Your task to perform on an android device: Find coffee shops on Maps Image 0: 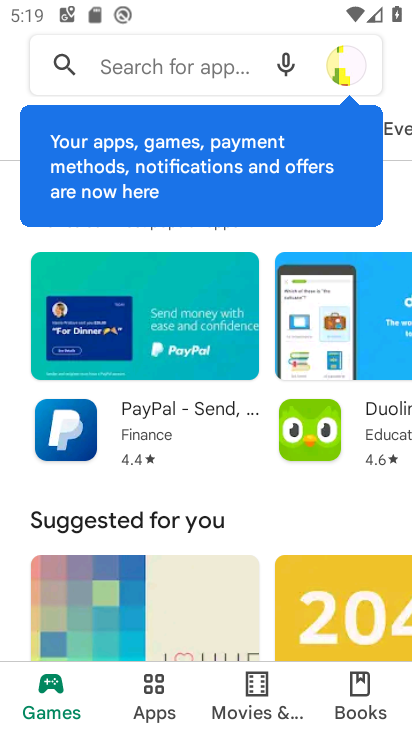
Step 0: task complete